Your task to perform on an android device: Open Chrome and go to settings Image 0: 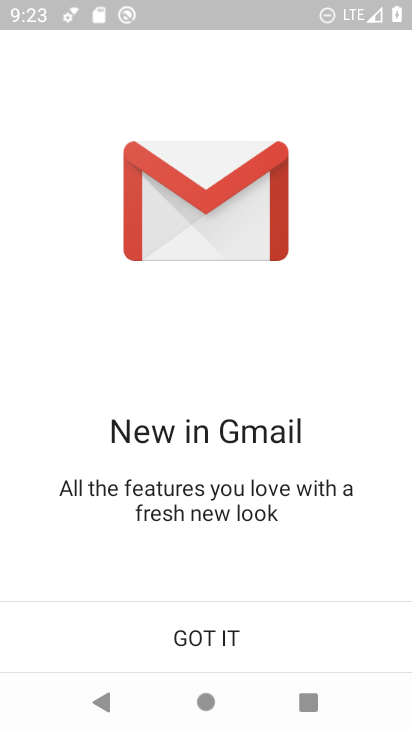
Step 0: press back button
Your task to perform on an android device: Open Chrome and go to settings Image 1: 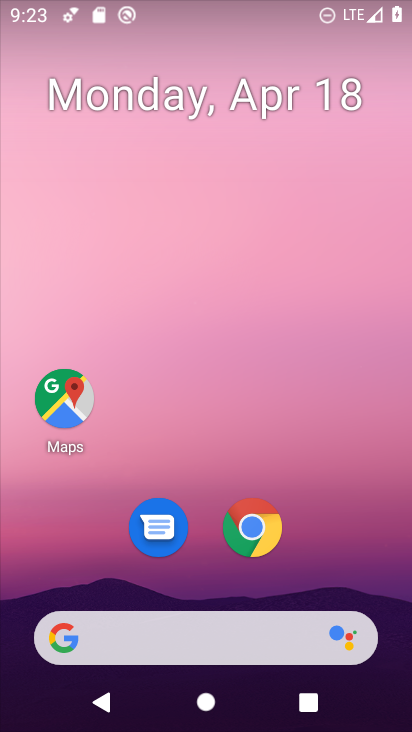
Step 1: drag from (324, 459) to (241, 21)
Your task to perform on an android device: Open Chrome and go to settings Image 2: 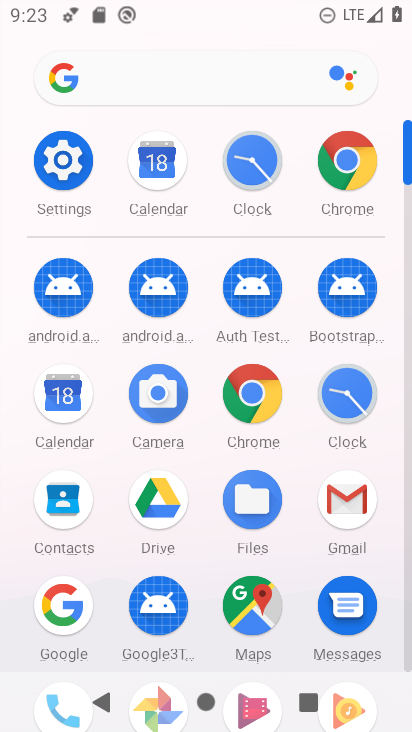
Step 2: click (252, 394)
Your task to perform on an android device: Open Chrome and go to settings Image 3: 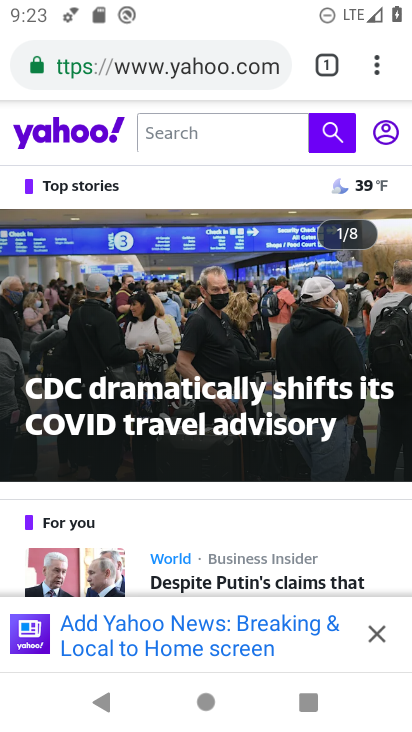
Step 3: task complete